Your task to perform on an android device: Show me recent news Image 0: 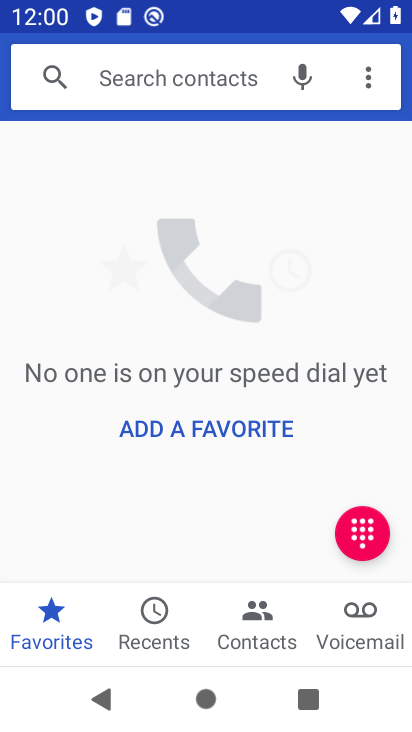
Step 0: press home button
Your task to perform on an android device: Show me recent news Image 1: 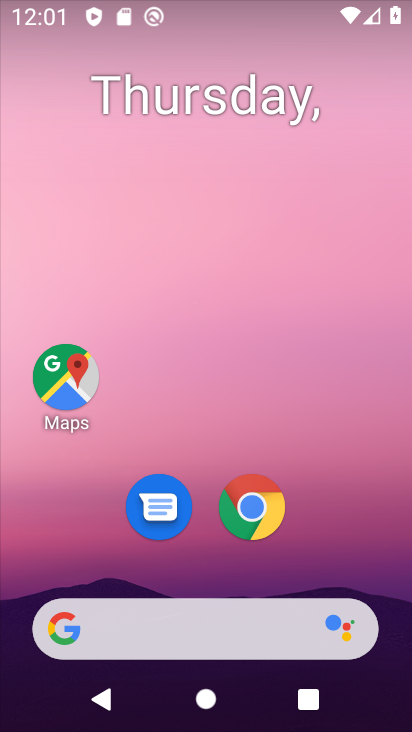
Step 1: drag from (271, 616) to (353, 224)
Your task to perform on an android device: Show me recent news Image 2: 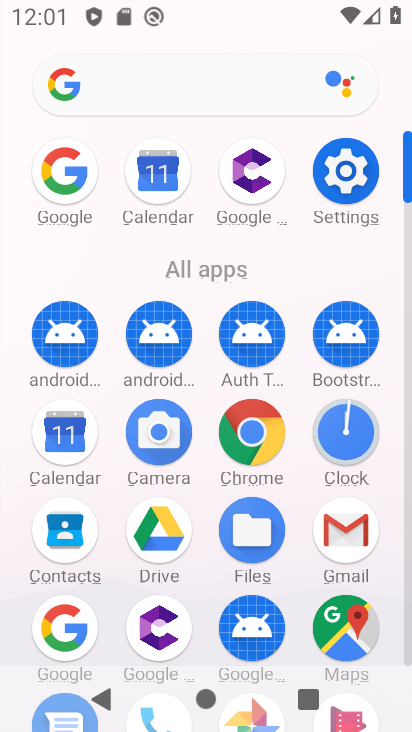
Step 2: drag from (184, 502) to (313, 375)
Your task to perform on an android device: Show me recent news Image 3: 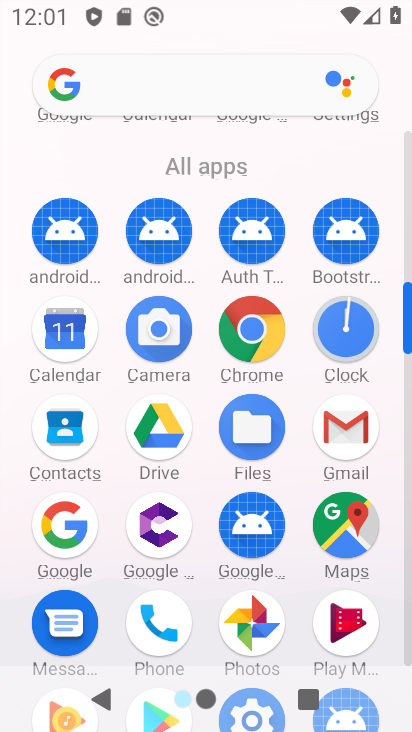
Step 3: click (74, 528)
Your task to perform on an android device: Show me recent news Image 4: 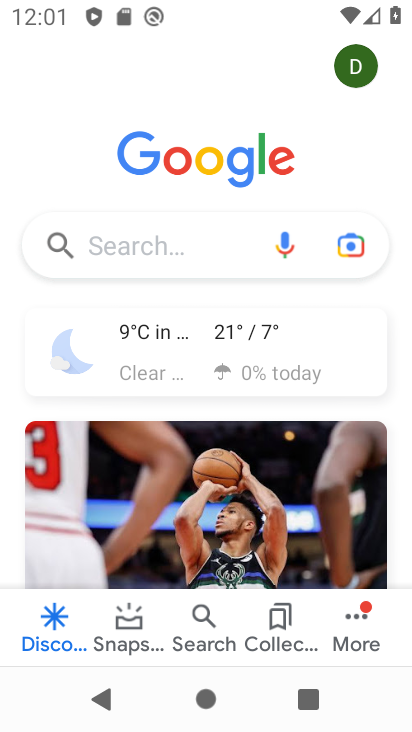
Step 4: click (128, 235)
Your task to perform on an android device: Show me recent news Image 5: 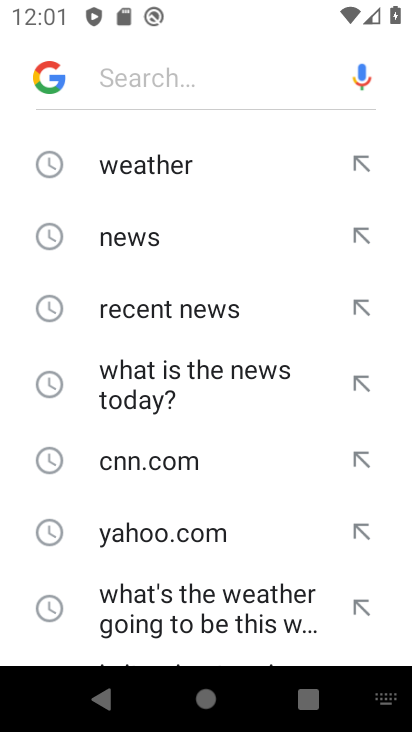
Step 5: click (125, 232)
Your task to perform on an android device: Show me recent news Image 6: 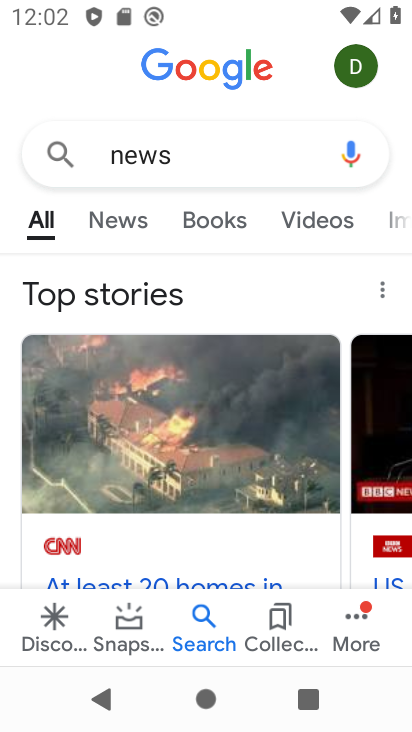
Step 6: task complete